Your task to perform on an android device: Open wifi settings Image 0: 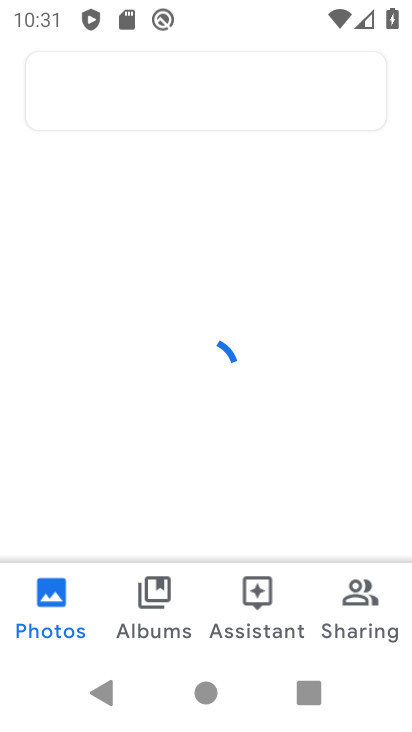
Step 0: press home button
Your task to perform on an android device: Open wifi settings Image 1: 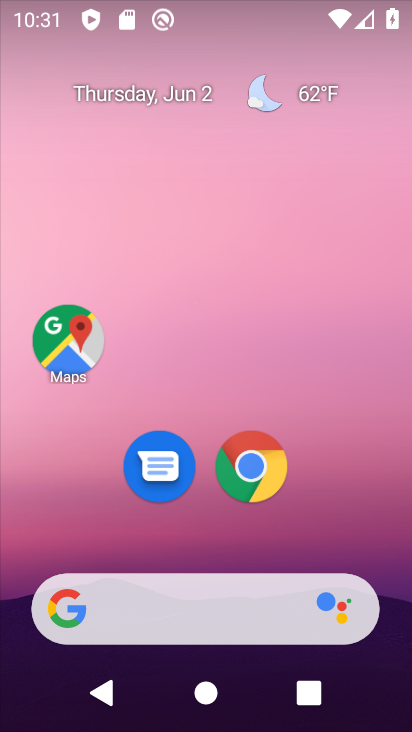
Step 1: drag from (214, 17) to (179, 680)
Your task to perform on an android device: Open wifi settings Image 2: 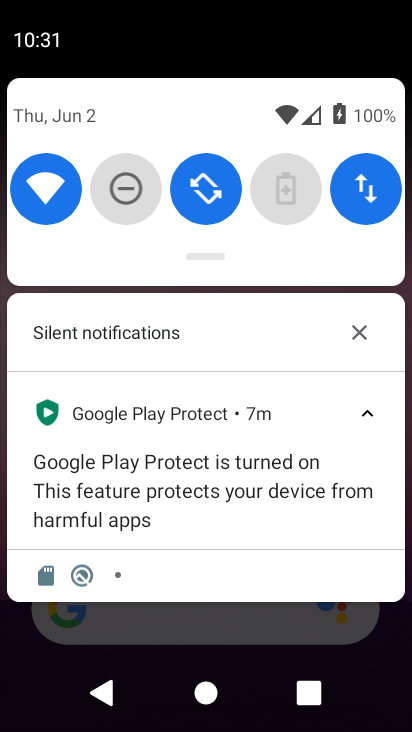
Step 2: drag from (203, 273) to (199, 612)
Your task to perform on an android device: Open wifi settings Image 3: 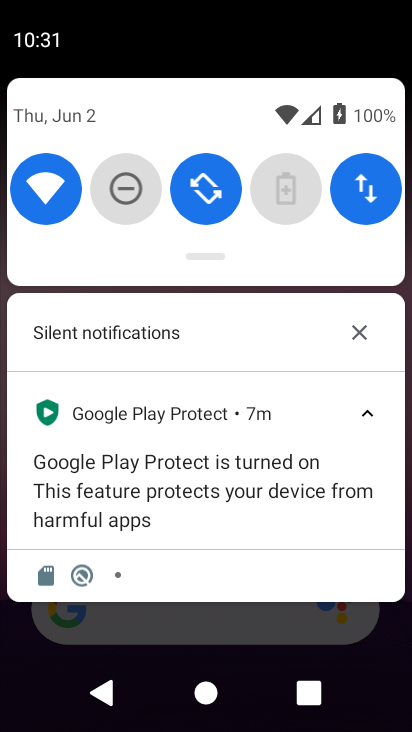
Step 3: drag from (201, 259) to (181, 627)
Your task to perform on an android device: Open wifi settings Image 4: 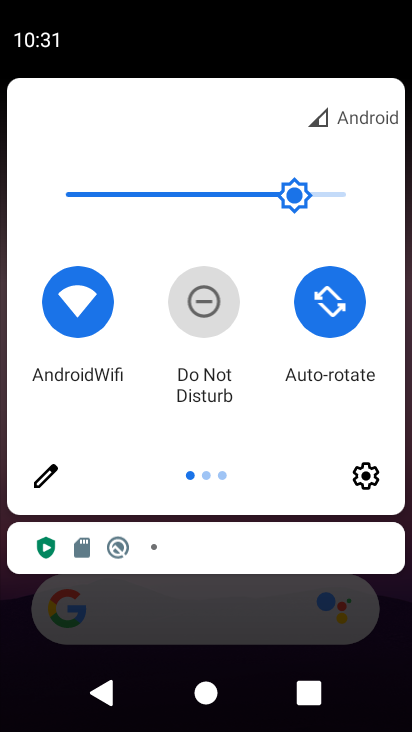
Step 4: click (367, 479)
Your task to perform on an android device: Open wifi settings Image 5: 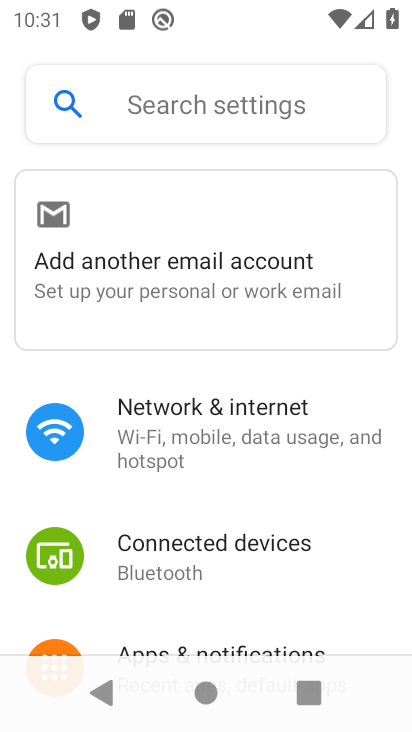
Step 5: click (184, 444)
Your task to perform on an android device: Open wifi settings Image 6: 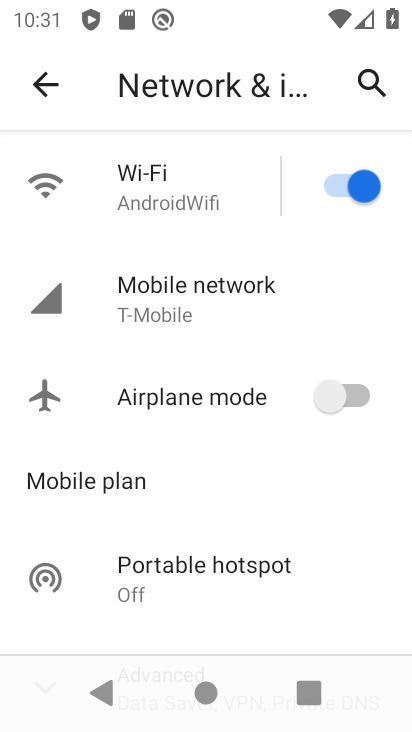
Step 6: click (125, 204)
Your task to perform on an android device: Open wifi settings Image 7: 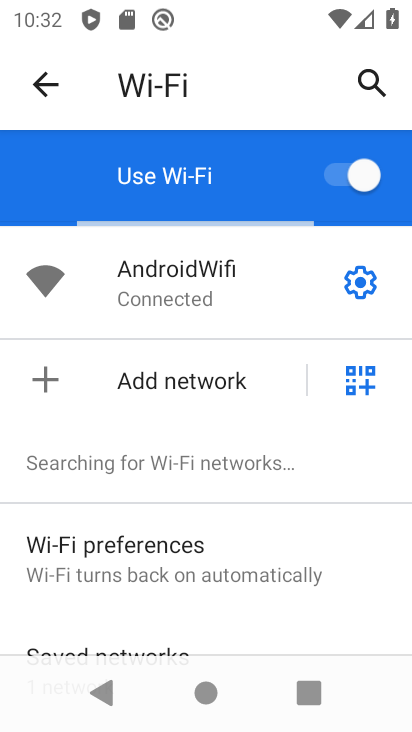
Step 7: task complete